Your task to perform on an android device: change timer sound Image 0: 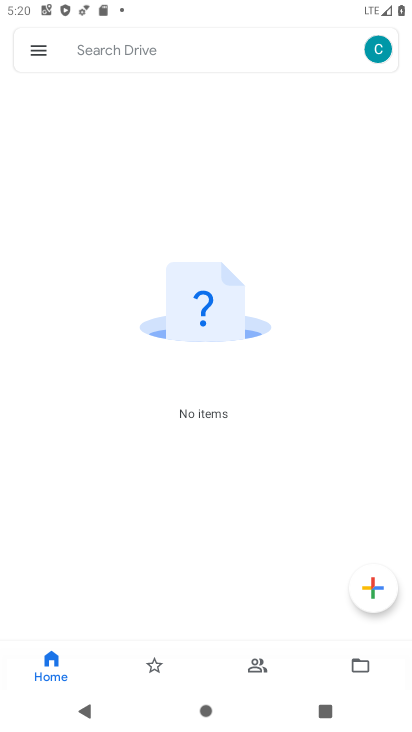
Step 0: press home button
Your task to perform on an android device: change timer sound Image 1: 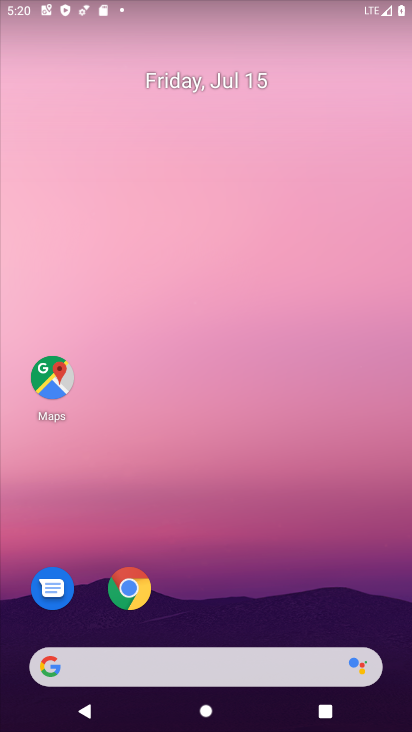
Step 1: drag from (293, 638) to (354, 144)
Your task to perform on an android device: change timer sound Image 2: 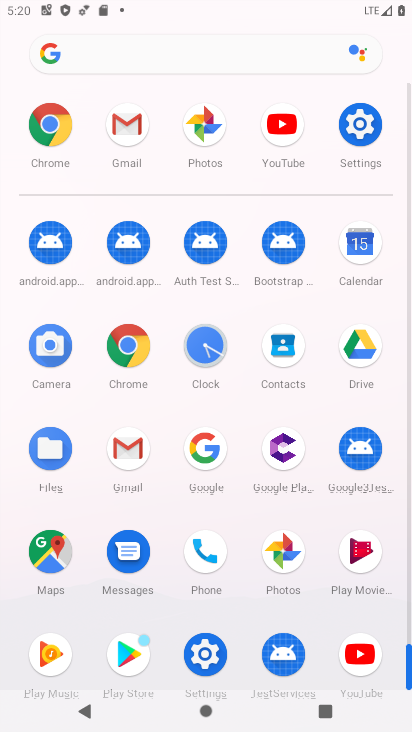
Step 2: click (197, 347)
Your task to perform on an android device: change timer sound Image 3: 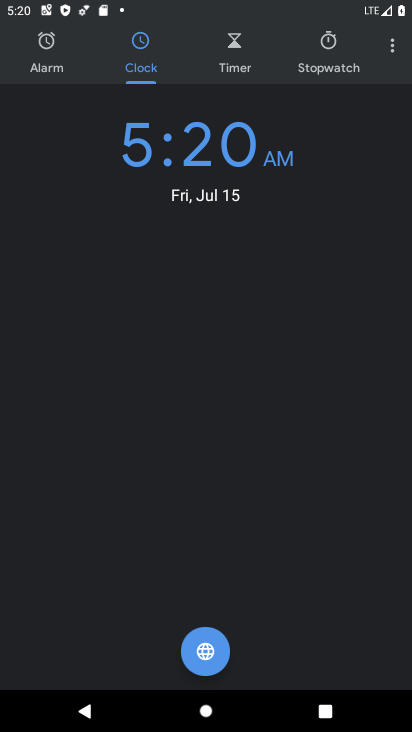
Step 3: click (383, 52)
Your task to perform on an android device: change timer sound Image 4: 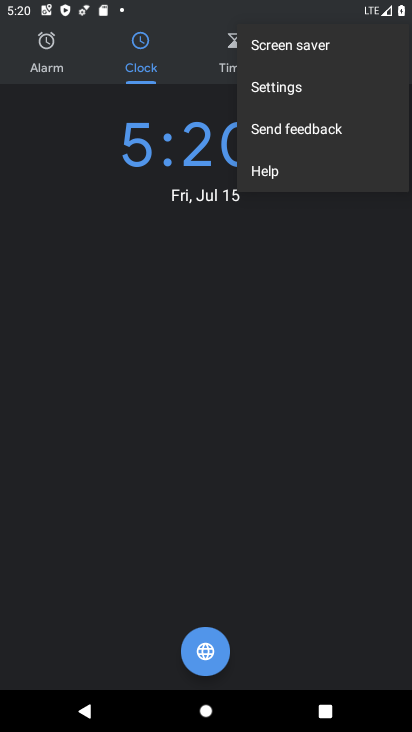
Step 4: click (277, 86)
Your task to perform on an android device: change timer sound Image 5: 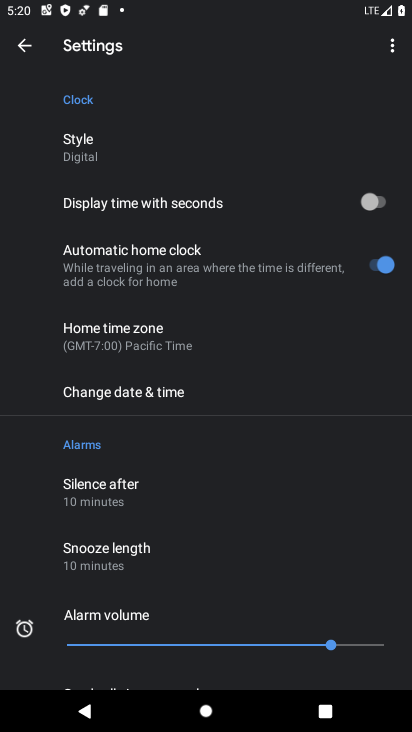
Step 5: drag from (156, 608) to (187, 94)
Your task to perform on an android device: change timer sound Image 6: 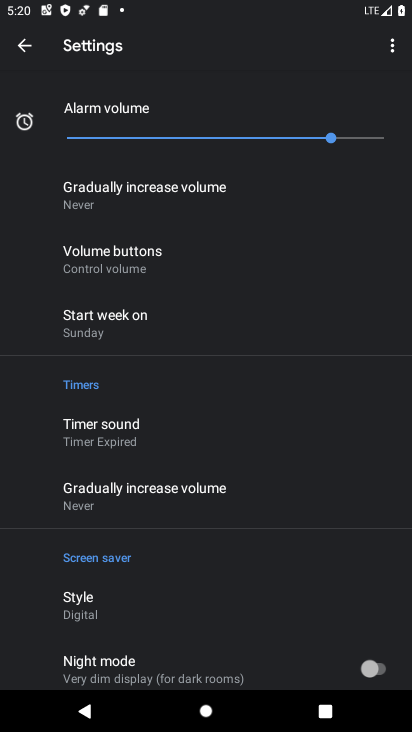
Step 6: click (133, 426)
Your task to perform on an android device: change timer sound Image 7: 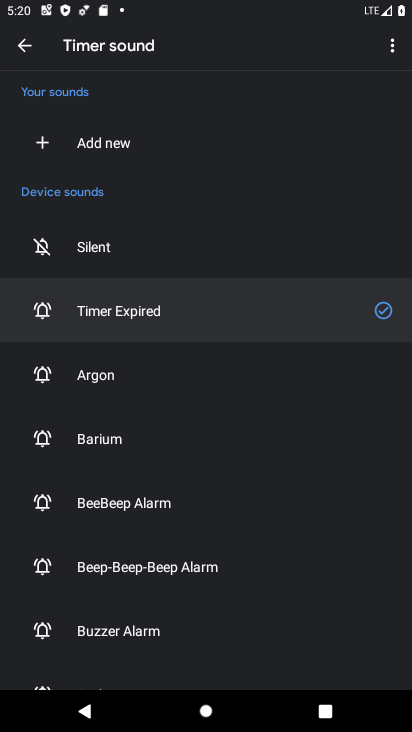
Step 7: click (99, 388)
Your task to perform on an android device: change timer sound Image 8: 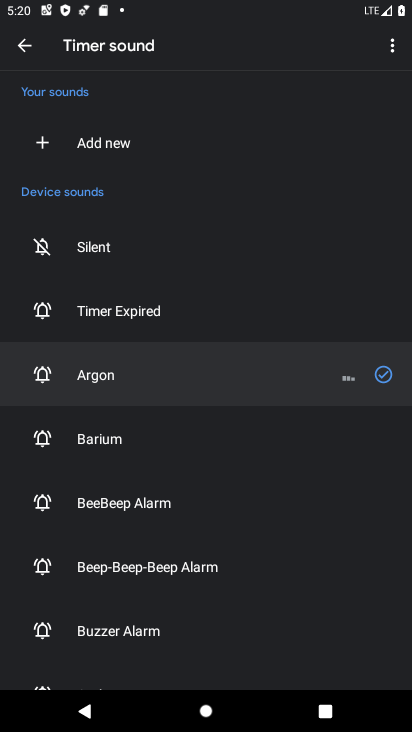
Step 8: task complete